Your task to perform on an android device: create a new album in the google photos Image 0: 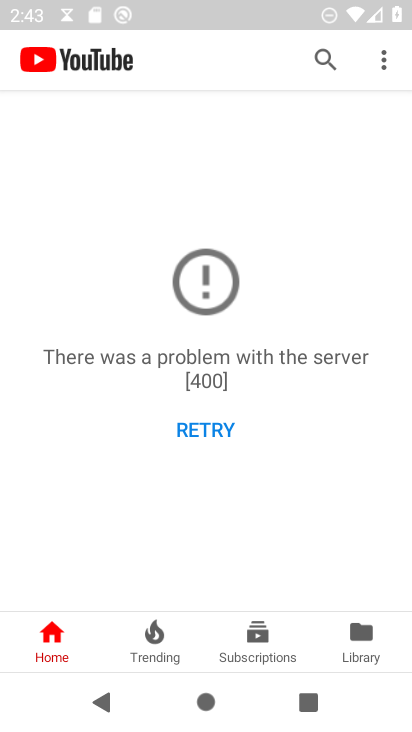
Step 0: press home button
Your task to perform on an android device: create a new album in the google photos Image 1: 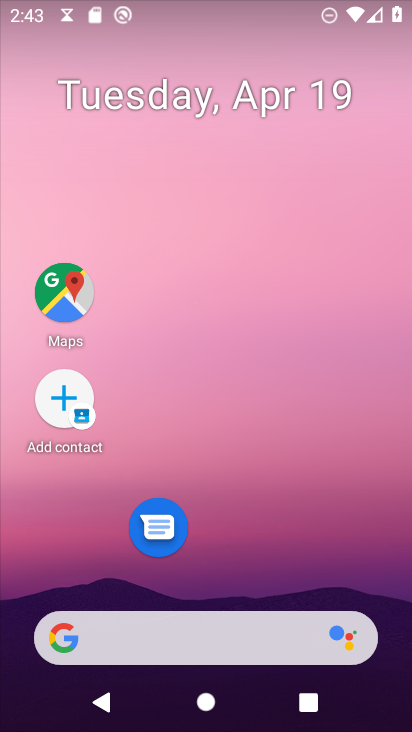
Step 1: drag from (251, 553) to (222, 6)
Your task to perform on an android device: create a new album in the google photos Image 2: 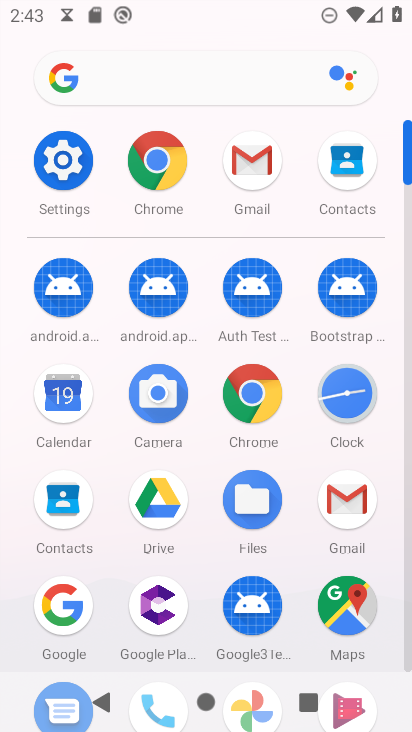
Step 2: drag from (212, 583) to (179, 367)
Your task to perform on an android device: create a new album in the google photos Image 3: 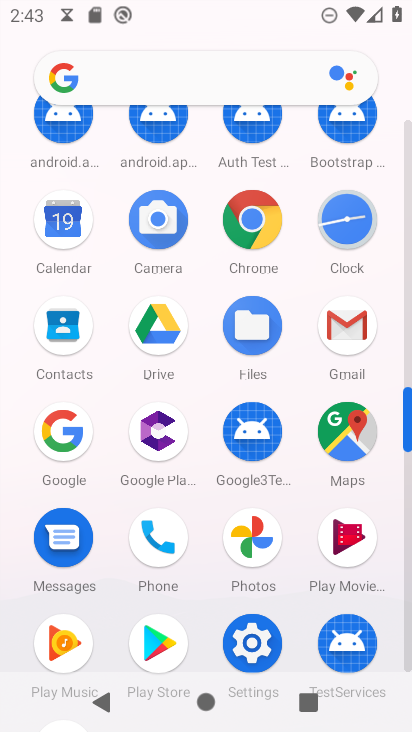
Step 3: click (251, 533)
Your task to perform on an android device: create a new album in the google photos Image 4: 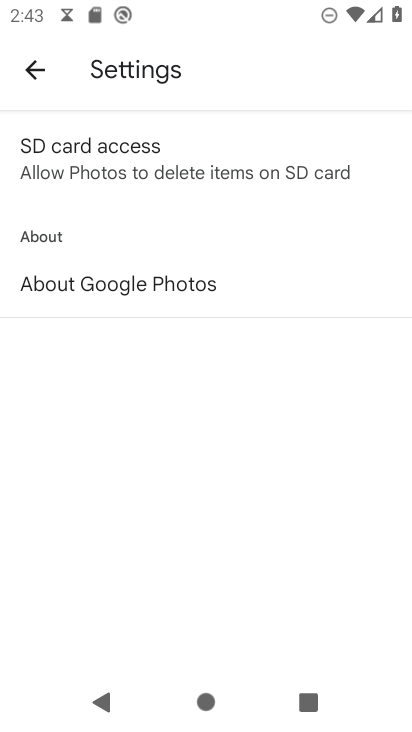
Step 4: press back button
Your task to perform on an android device: create a new album in the google photos Image 5: 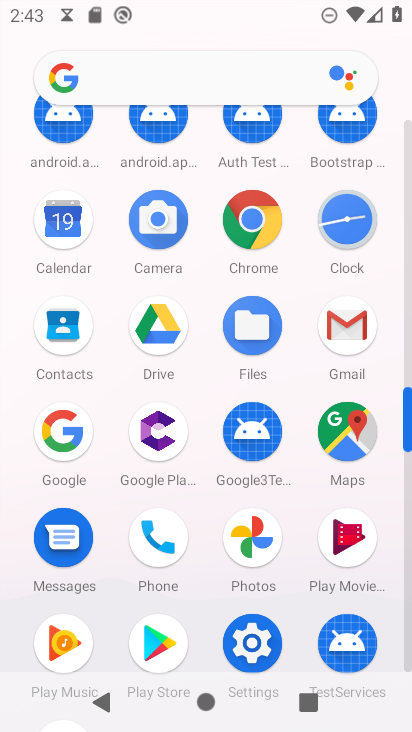
Step 5: click (254, 539)
Your task to perform on an android device: create a new album in the google photos Image 6: 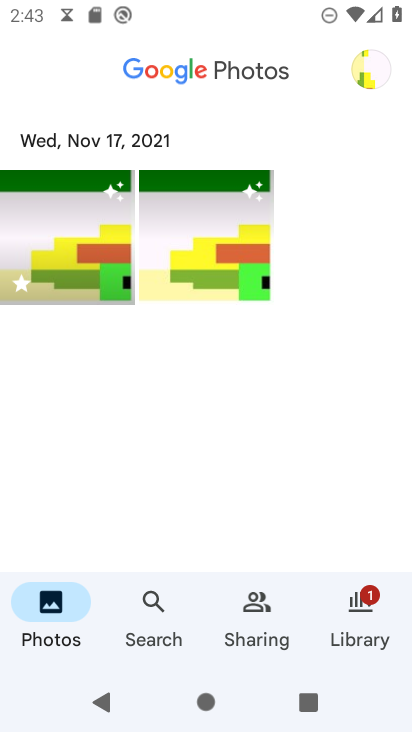
Step 6: click (363, 601)
Your task to perform on an android device: create a new album in the google photos Image 7: 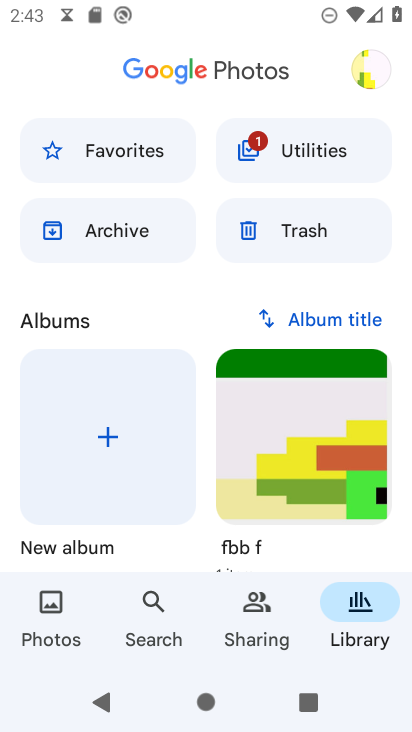
Step 7: click (108, 436)
Your task to perform on an android device: create a new album in the google photos Image 8: 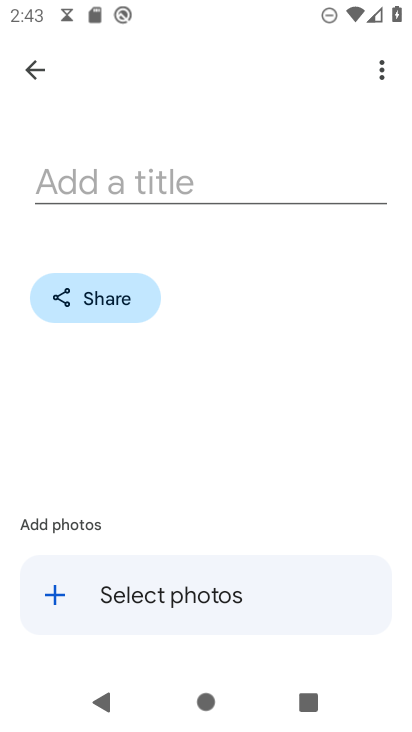
Step 8: click (254, 185)
Your task to perform on an android device: create a new album in the google photos Image 9: 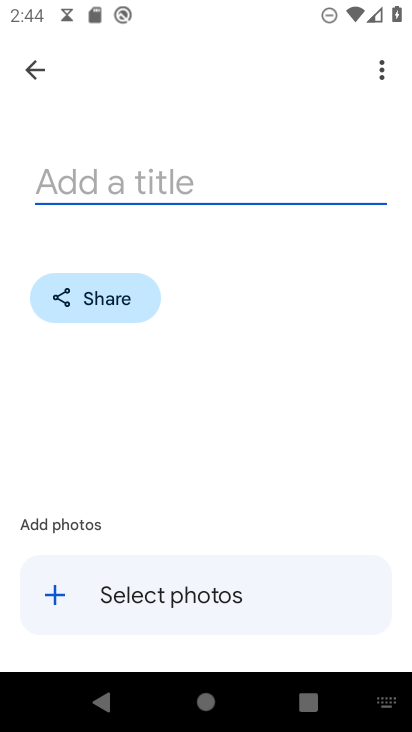
Step 9: type "Besh"
Your task to perform on an android device: create a new album in the google photos Image 10: 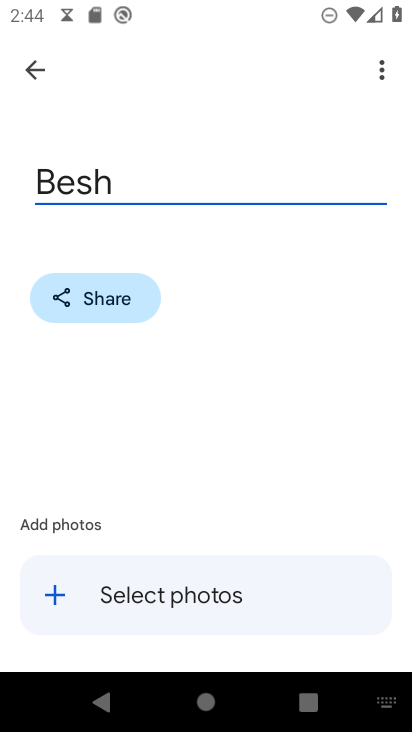
Step 10: click (143, 601)
Your task to perform on an android device: create a new album in the google photos Image 11: 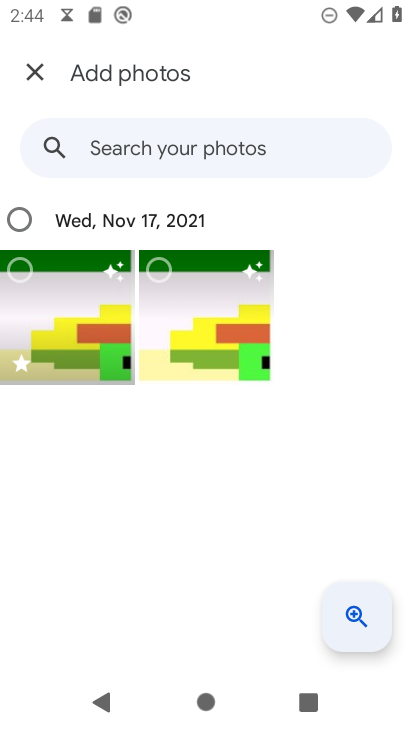
Step 11: click (20, 262)
Your task to perform on an android device: create a new album in the google photos Image 12: 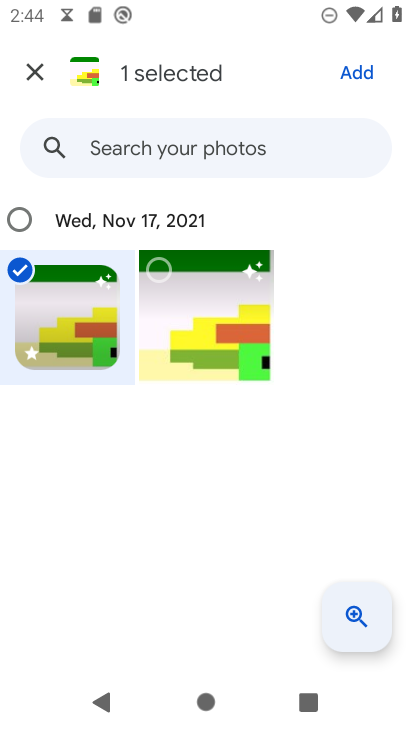
Step 12: click (352, 75)
Your task to perform on an android device: create a new album in the google photos Image 13: 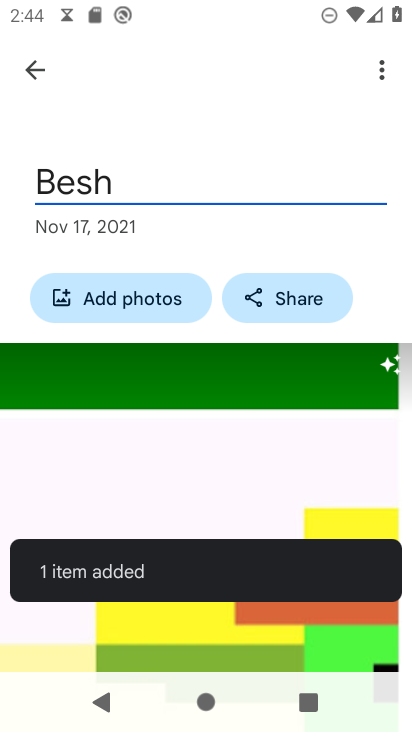
Step 13: task complete